Your task to perform on an android device: Open calendar and show me the third week of next month Image 0: 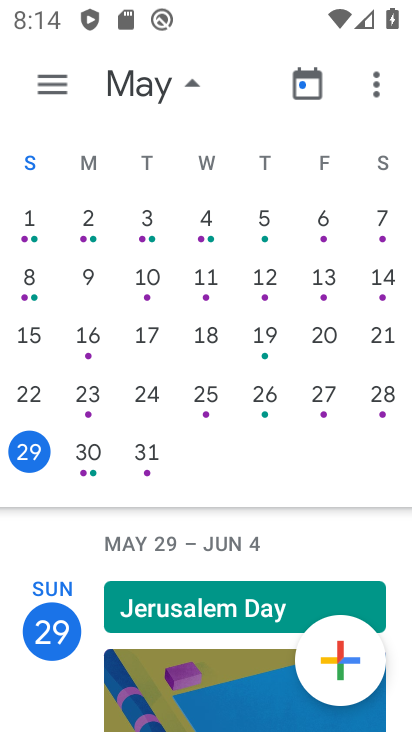
Step 0: drag from (320, 378) to (57, 422)
Your task to perform on an android device: Open calendar and show me the third week of next month Image 1: 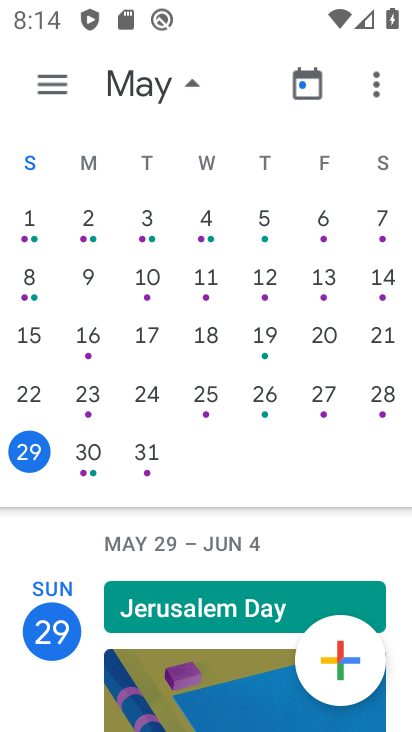
Step 1: click (385, 335)
Your task to perform on an android device: Open calendar and show me the third week of next month Image 2: 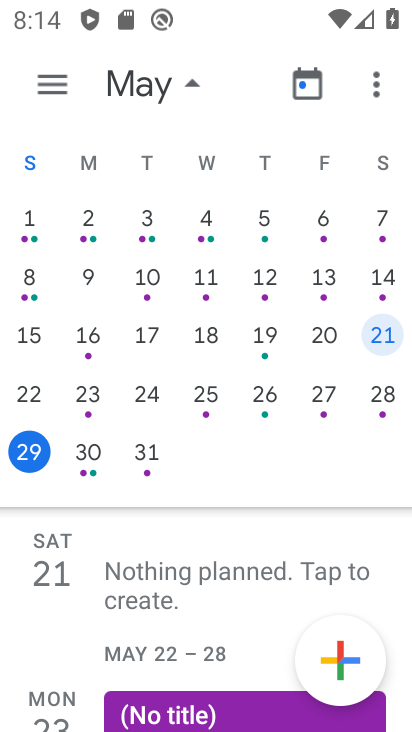
Step 2: task complete